Your task to perform on an android device: Open Youtube and go to "Your channel" Image 0: 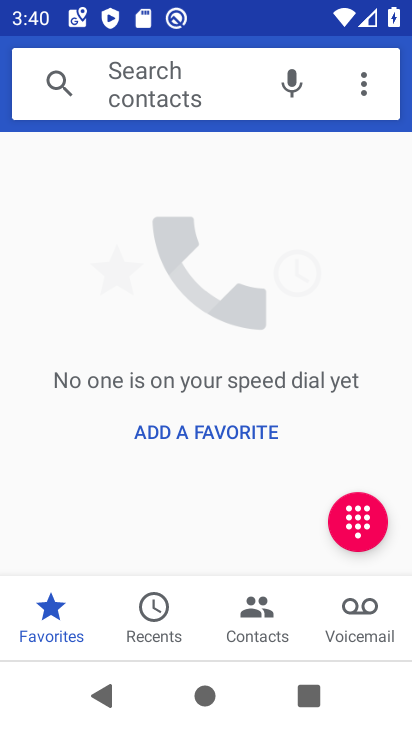
Step 0: press back button
Your task to perform on an android device: Open Youtube and go to "Your channel" Image 1: 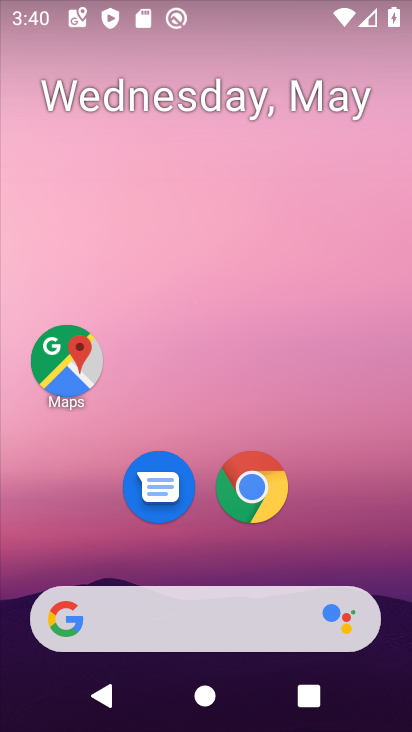
Step 1: drag from (334, 527) to (240, 61)
Your task to perform on an android device: Open Youtube and go to "Your channel" Image 2: 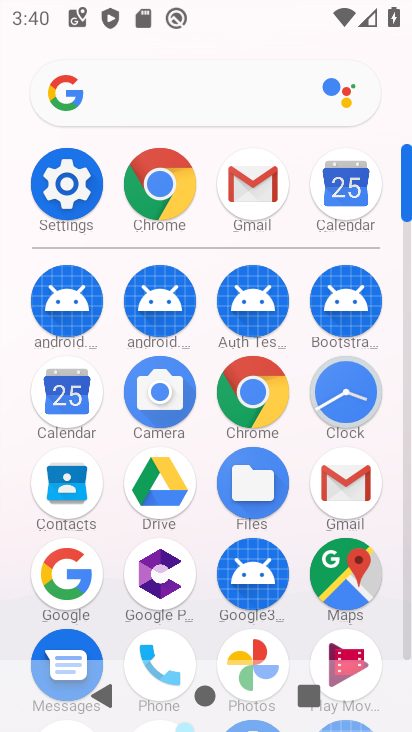
Step 2: drag from (21, 614) to (20, 316)
Your task to perform on an android device: Open Youtube and go to "Your channel" Image 3: 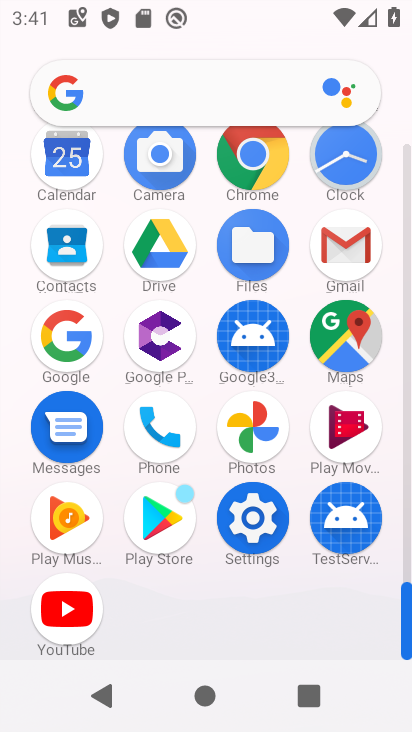
Step 3: click (68, 611)
Your task to perform on an android device: Open Youtube and go to "Your channel" Image 4: 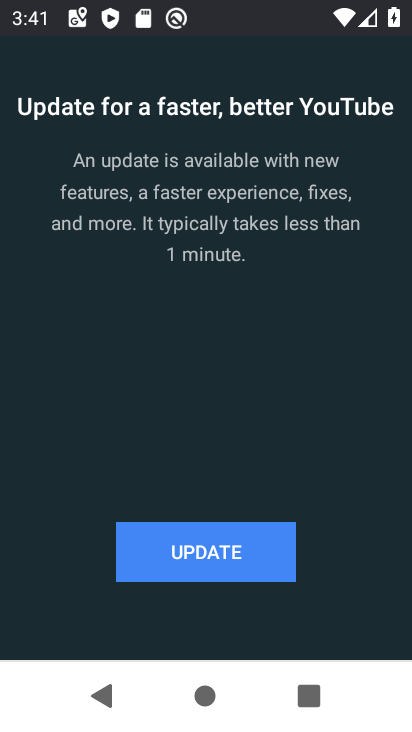
Step 4: click (202, 553)
Your task to perform on an android device: Open Youtube and go to "Your channel" Image 5: 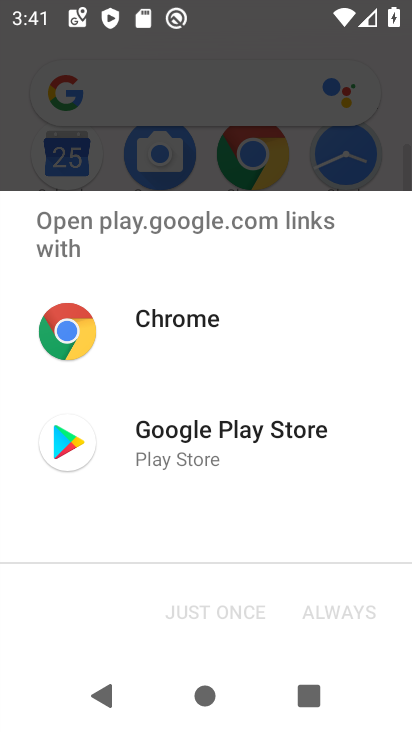
Step 5: click (228, 420)
Your task to perform on an android device: Open Youtube and go to "Your channel" Image 6: 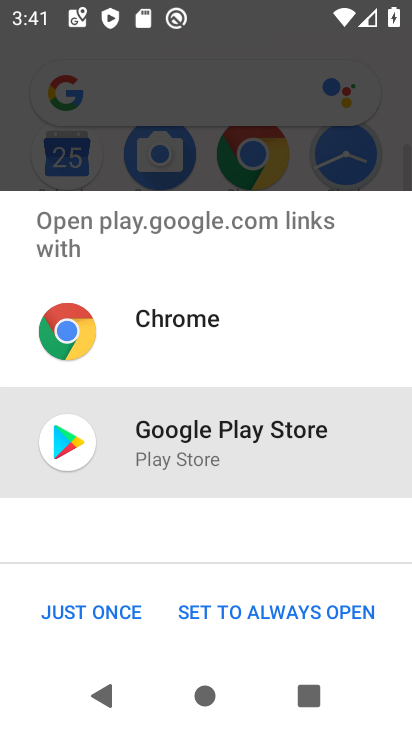
Step 6: click (109, 612)
Your task to perform on an android device: Open Youtube and go to "Your channel" Image 7: 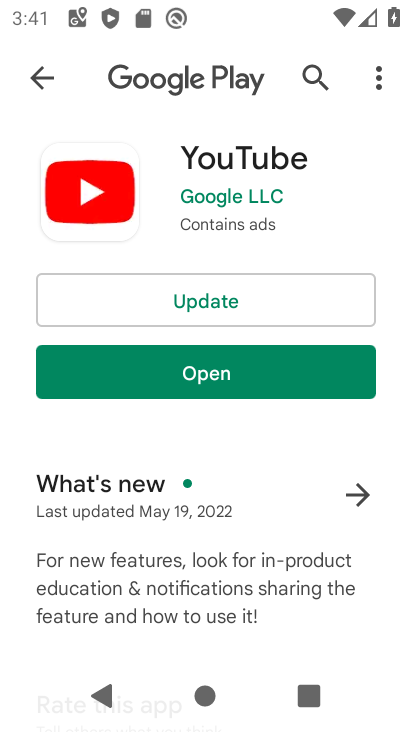
Step 7: click (190, 298)
Your task to perform on an android device: Open Youtube and go to "Your channel" Image 8: 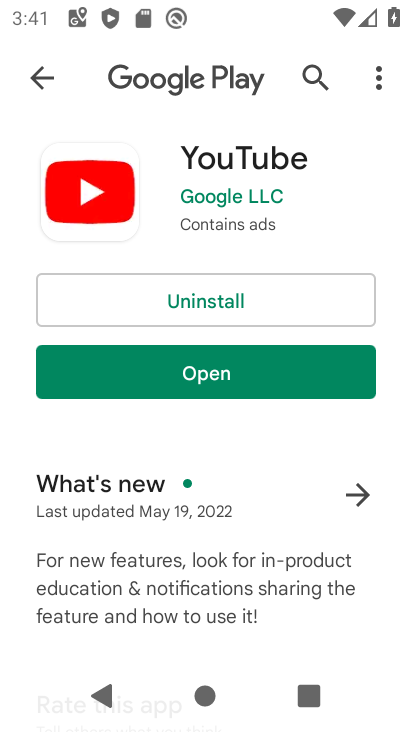
Step 8: click (191, 376)
Your task to perform on an android device: Open Youtube and go to "Your channel" Image 9: 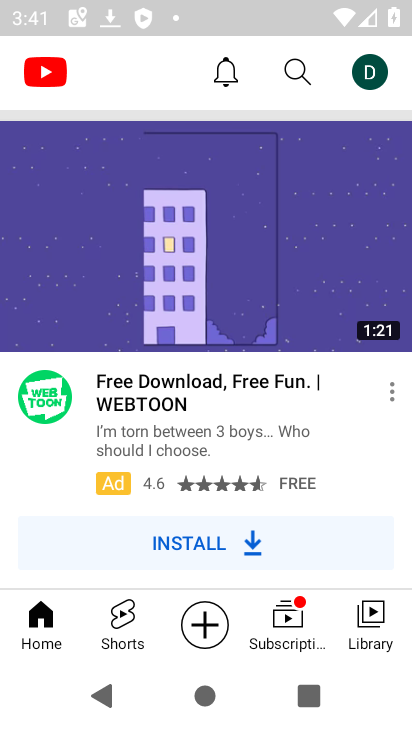
Step 9: click (369, 632)
Your task to perform on an android device: Open Youtube and go to "Your channel" Image 10: 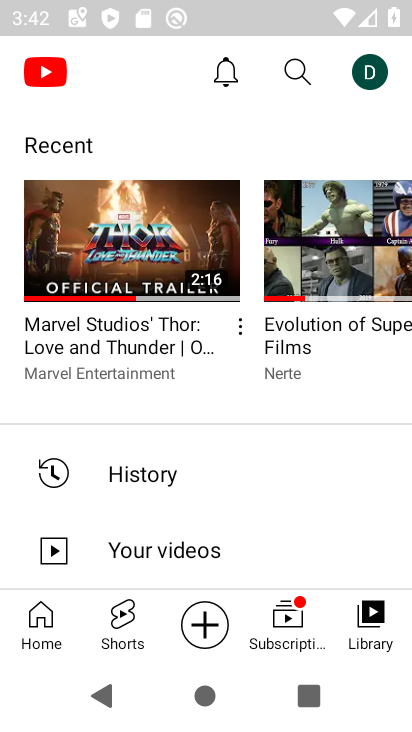
Step 10: click (378, 629)
Your task to perform on an android device: Open Youtube and go to "Your channel" Image 11: 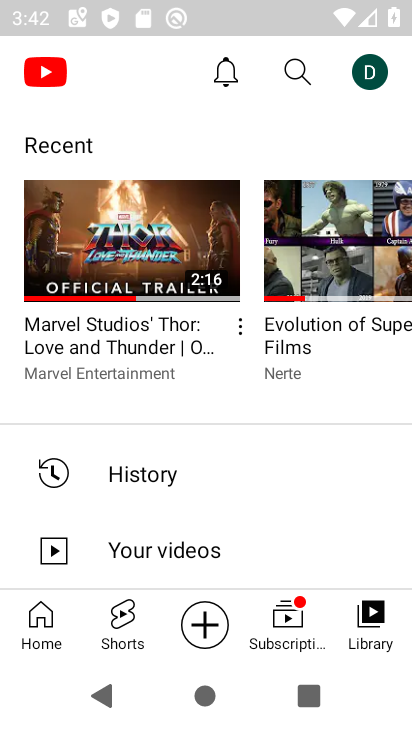
Step 11: click (367, 630)
Your task to perform on an android device: Open Youtube and go to "Your channel" Image 12: 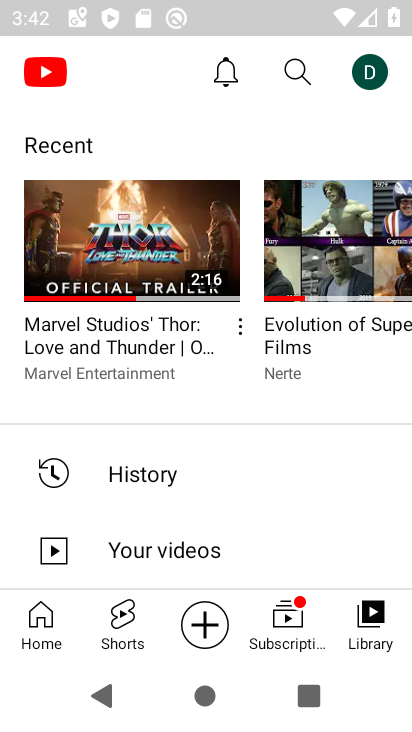
Step 12: task complete